Your task to perform on an android device: Open ESPN.com Image 0: 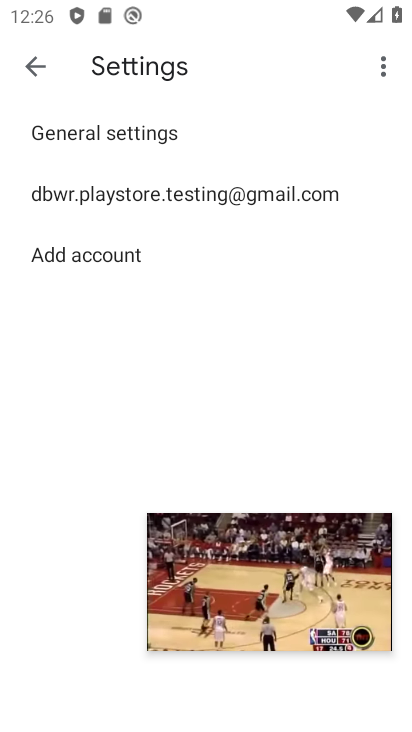
Step 0: press home button
Your task to perform on an android device: Open ESPN.com Image 1: 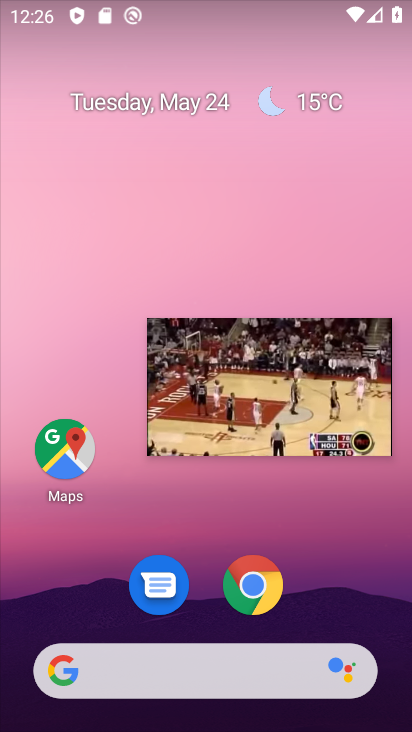
Step 1: click (269, 674)
Your task to perform on an android device: Open ESPN.com Image 2: 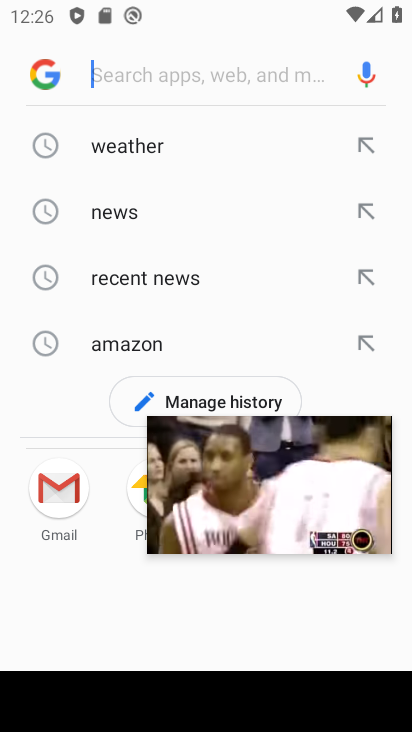
Step 2: type "espn.com"
Your task to perform on an android device: Open ESPN.com Image 3: 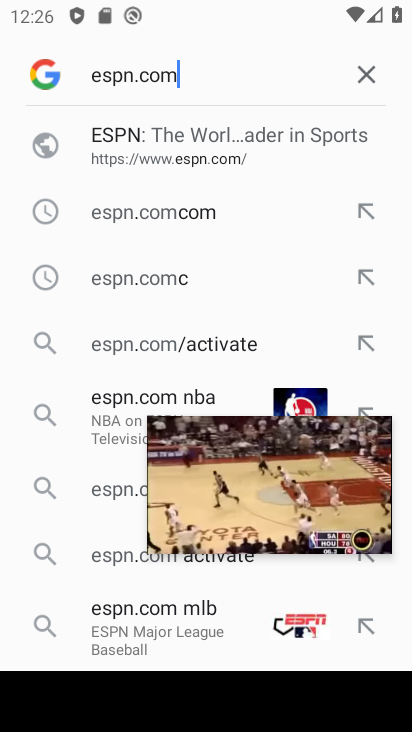
Step 3: click (206, 155)
Your task to perform on an android device: Open ESPN.com Image 4: 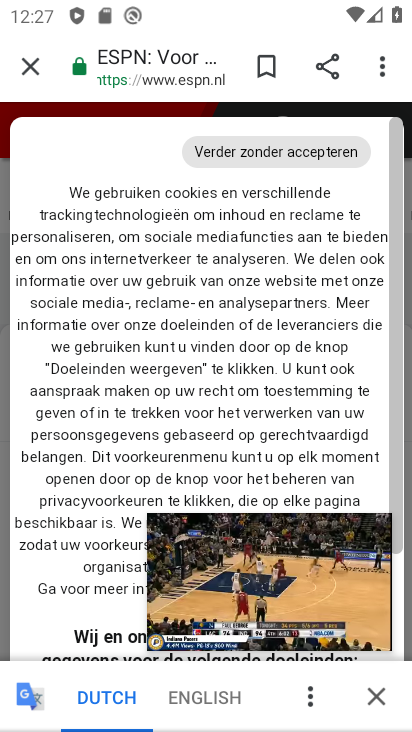
Step 4: task complete